Your task to perform on an android device: check out phone information Image 0: 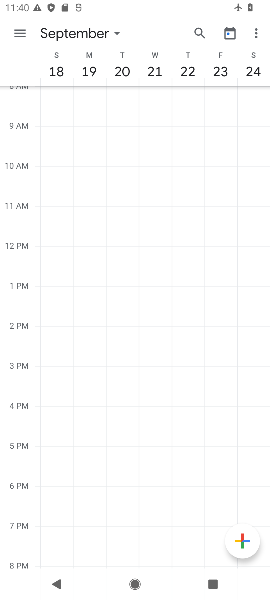
Step 0: press home button
Your task to perform on an android device: check out phone information Image 1: 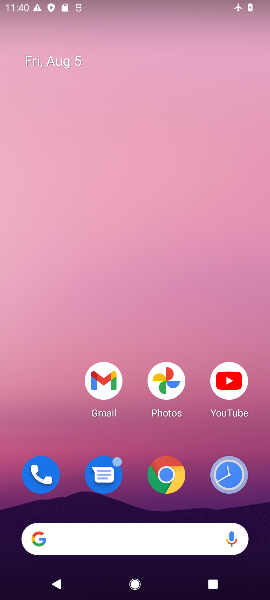
Step 1: drag from (131, 499) to (228, 10)
Your task to perform on an android device: check out phone information Image 2: 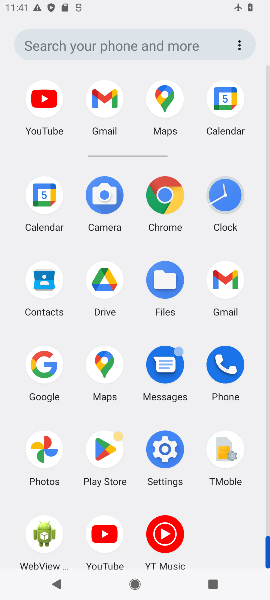
Step 2: click (159, 470)
Your task to perform on an android device: check out phone information Image 3: 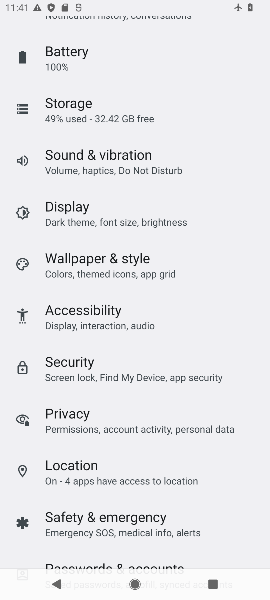
Step 3: drag from (81, 510) to (162, 67)
Your task to perform on an android device: check out phone information Image 4: 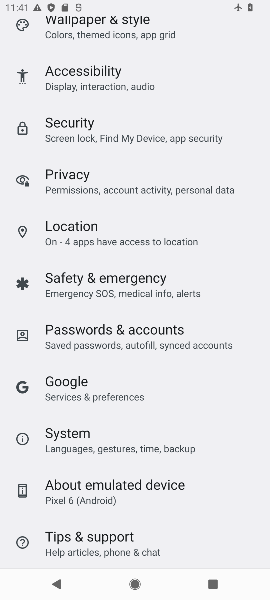
Step 4: click (114, 502)
Your task to perform on an android device: check out phone information Image 5: 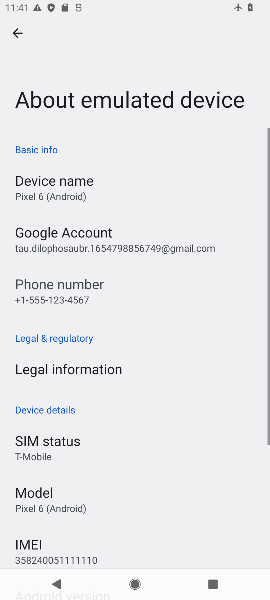
Step 5: task complete